Your task to perform on an android device: move an email to a new category in the gmail app Image 0: 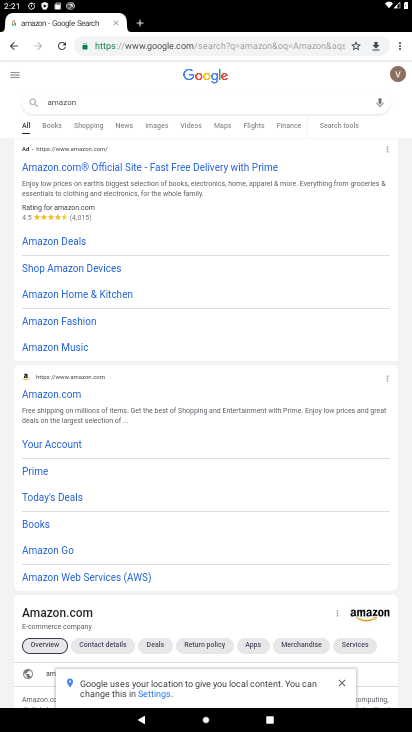
Step 0: press home button
Your task to perform on an android device: move an email to a new category in the gmail app Image 1: 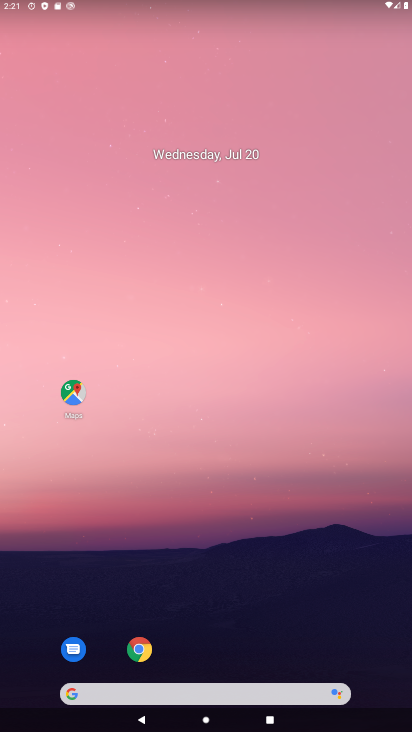
Step 1: drag from (238, 565) to (228, 246)
Your task to perform on an android device: move an email to a new category in the gmail app Image 2: 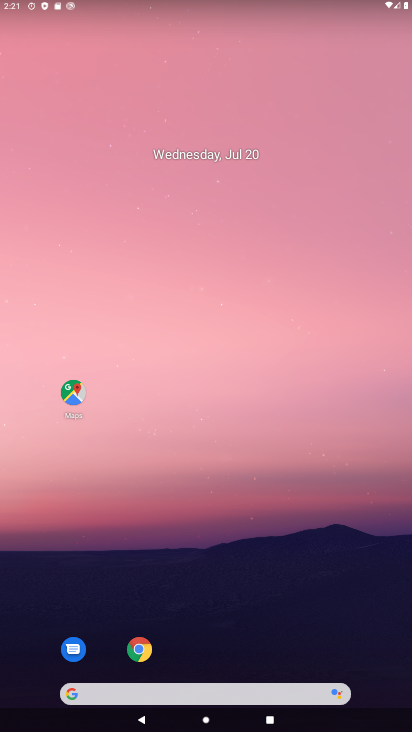
Step 2: drag from (235, 612) to (248, 119)
Your task to perform on an android device: move an email to a new category in the gmail app Image 3: 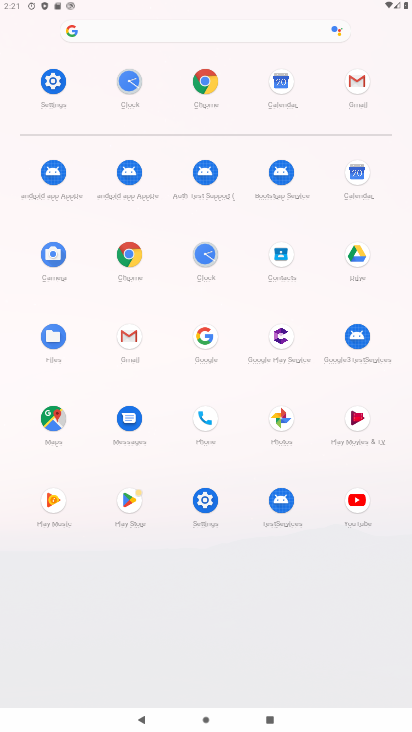
Step 3: click (129, 337)
Your task to perform on an android device: move an email to a new category in the gmail app Image 4: 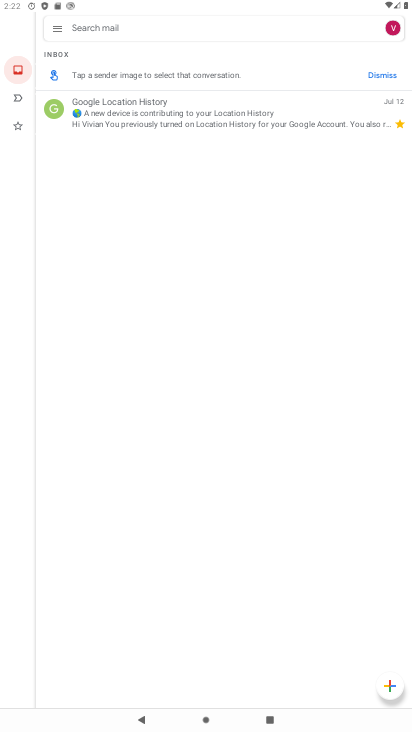
Step 4: task complete